Your task to perform on an android device: When is my next meeting? Image 0: 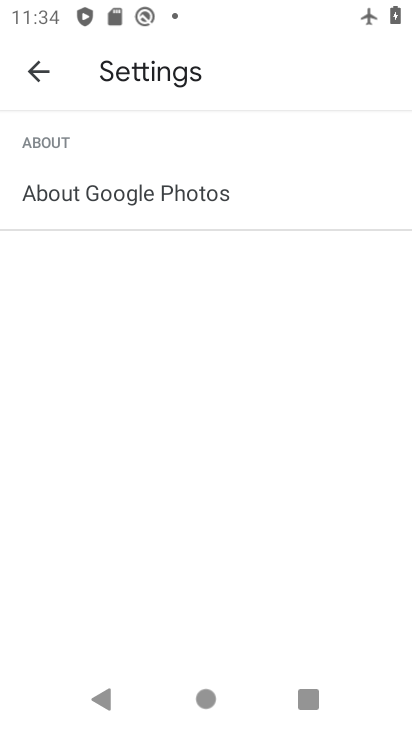
Step 0: press home button
Your task to perform on an android device: When is my next meeting? Image 1: 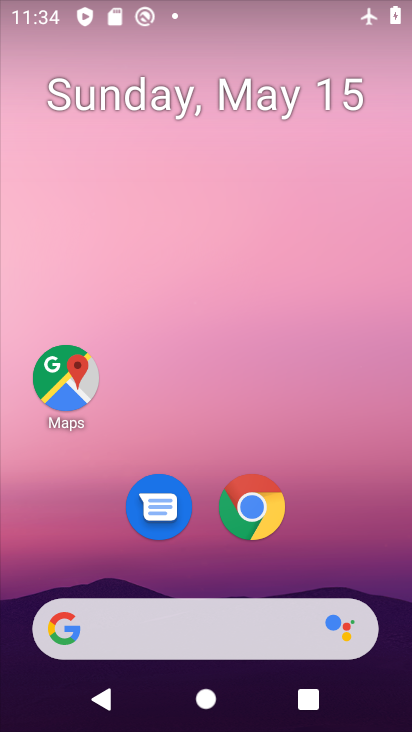
Step 1: drag from (327, 506) to (361, 136)
Your task to perform on an android device: When is my next meeting? Image 2: 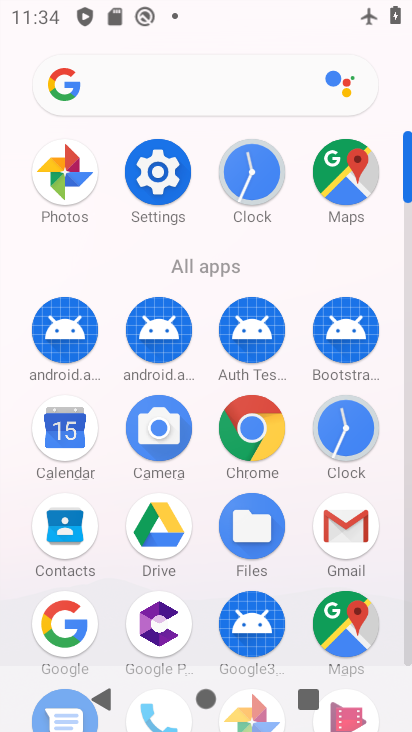
Step 2: click (339, 434)
Your task to perform on an android device: When is my next meeting? Image 3: 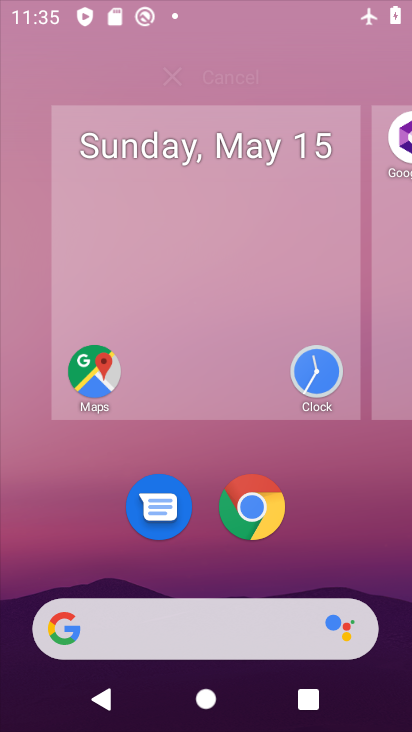
Step 3: drag from (326, 257) to (337, 143)
Your task to perform on an android device: When is my next meeting? Image 4: 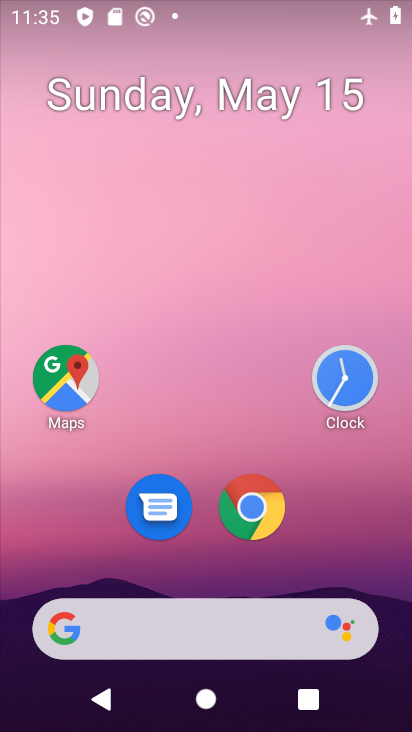
Step 4: drag from (308, 535) to (330, 133)
Your task to perform on an android device: When is my next meeting? Image 5: 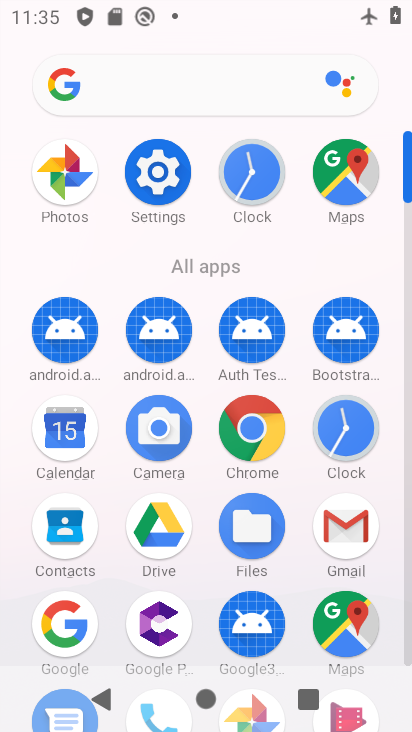
Step 5: click (53, 443)
Your task to perform on an android device: When is my next meeting? Image 6: 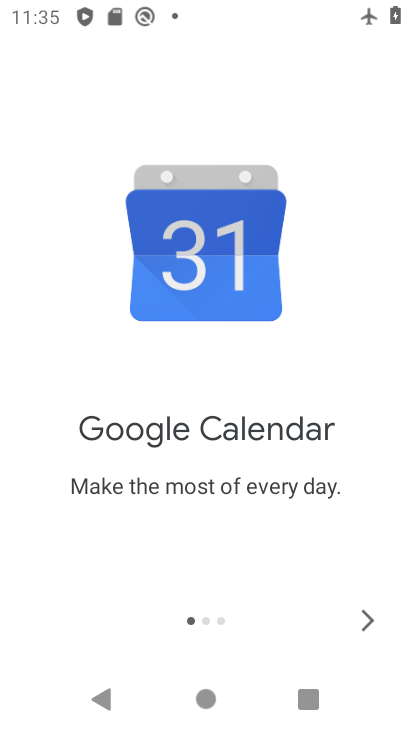
Step 6: click (365, 633)
Your task to perform on an android device: When is my next meeting? Image 7: 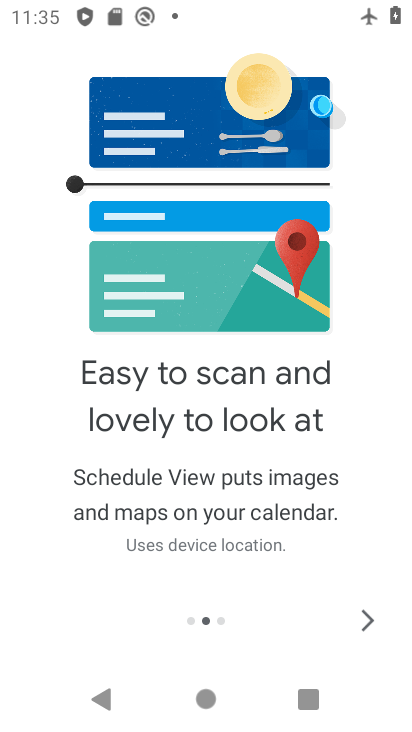
Step 7: click (365, 633)
Your task to perform on an android device: When is my next meeting? Image 8: 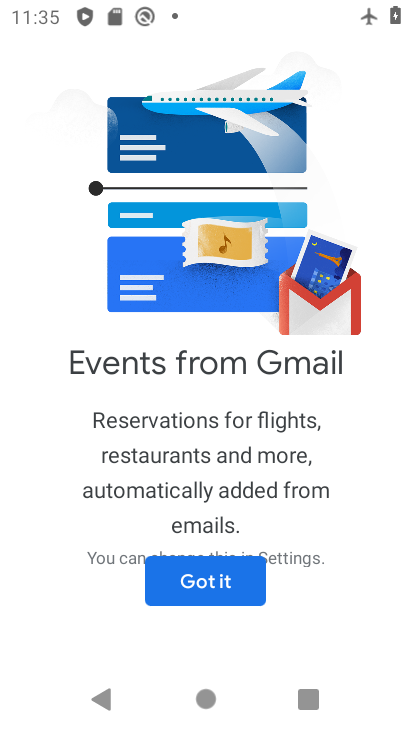
Step 8: click (365, 633)
Your task to perform on an android device: When is my next meeting? Image 9: 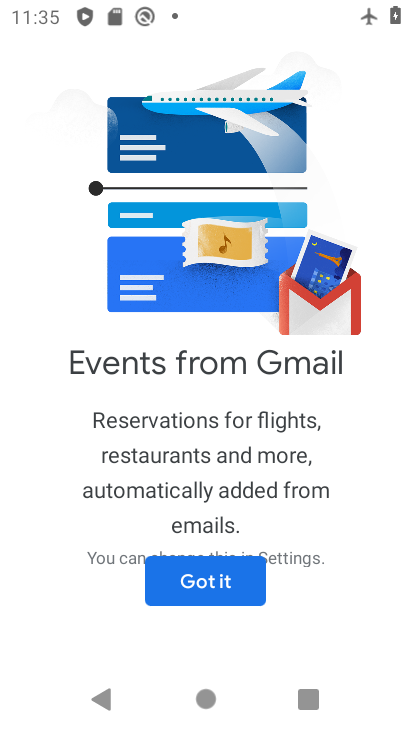
Step 9: click (208, 583)
Your task to perform on an android device: When is my next meeting? Image 10: 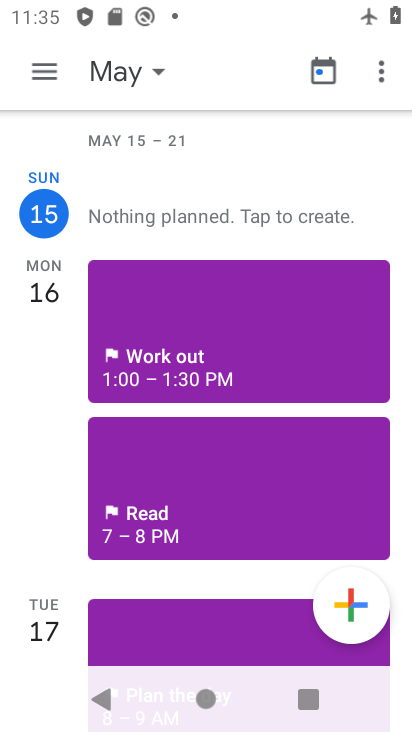
Step 10: click (118, 74)
Your task to perform on an android device: When is my next meeting? Image 11: 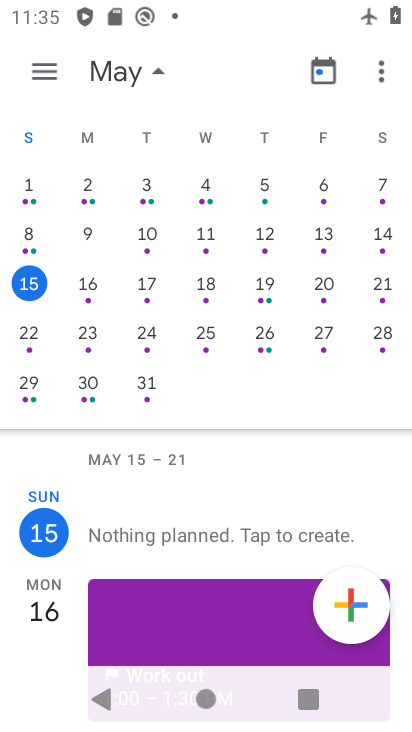
Step 11: click (84, 279)
Your task to perform on an android device: When is my next meeting? Image 12: 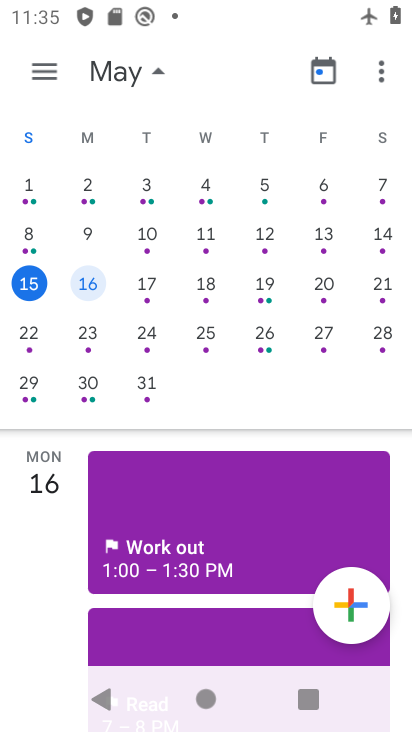
Step 12: task complete